Your task to perform on an android device: search for starred emails in the gmail app Image 0: 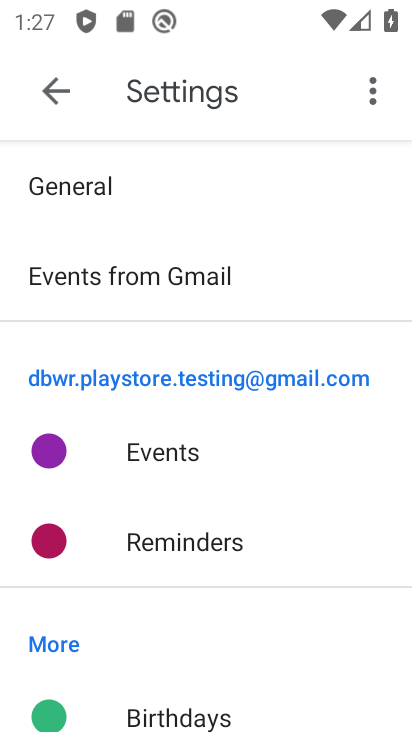
Step 0: press home button
Your task to perform on an android device: search for starred emails in the gmail app Image 1: 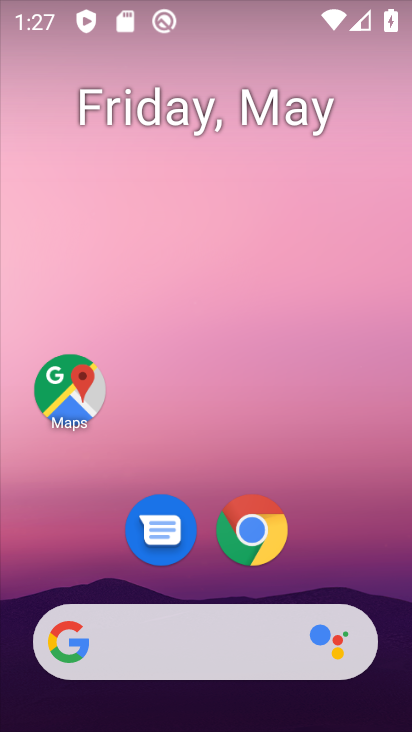
Step 1: drag from (195, 600) to (166, 70)
Your task to perform on an android device: search for starred emails in the gmail app Image 2: 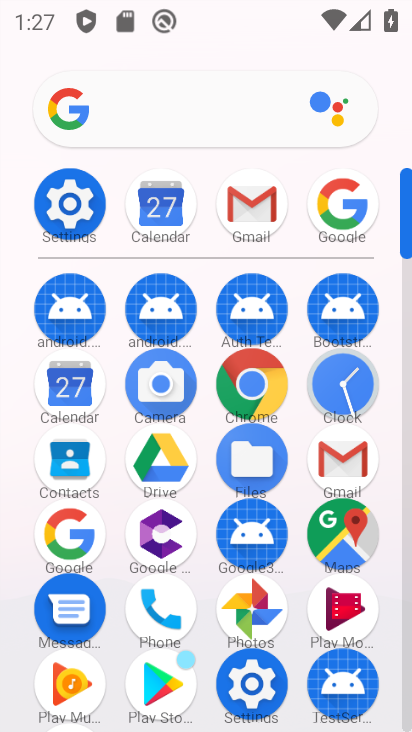
Step 2: click (334, 462)
Your task to perform on an android device: search for starred emails in the gmail app Image 3: 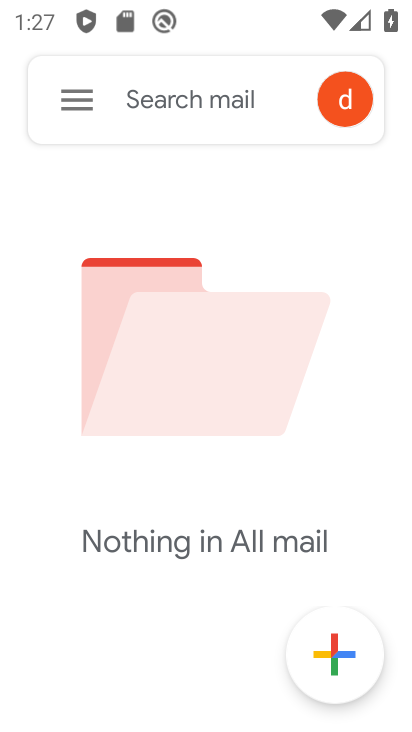
Step 3: click (68, 101)
Your task to perform on an android device: search for starred emails in the gmail app Image 4: 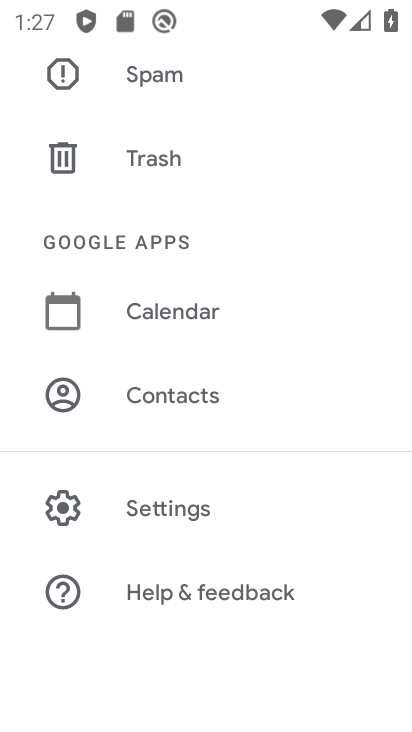
Step 4: drag from (185, 203) to (260, 608)
Your task to perform on an android device: search for starred emails in the gmail app Image 5: 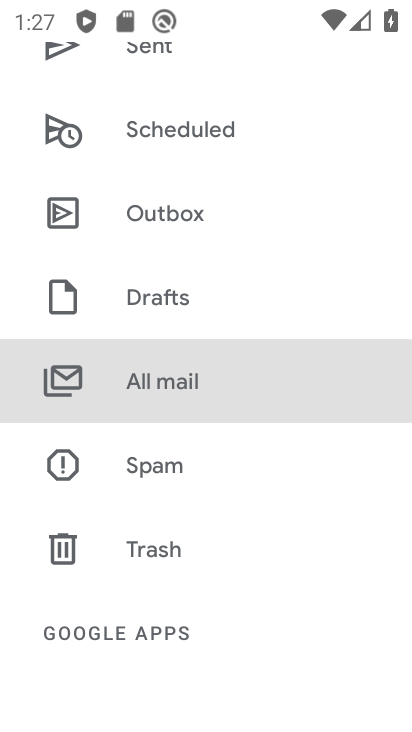
Step 5: drag from (203, 232) to (210, 559)
Your task to perform on an android device: search for starred emails in the gmail app Image 6: 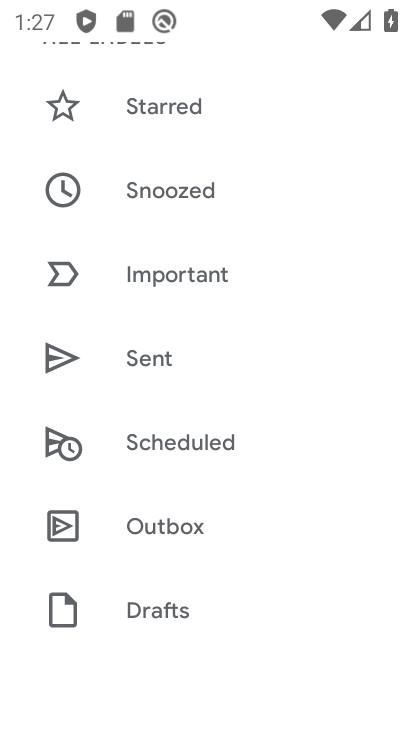
Step 6: click (169, 107)
Your task to perform on an android device: search for starred emails in the gmail app Image 7: 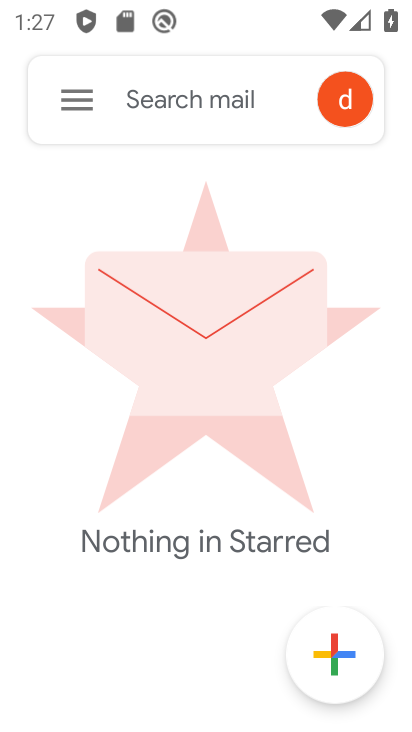
Step 7: task complete